Your task to perform on an android device: clear all cookies in the chrome app Image 0: 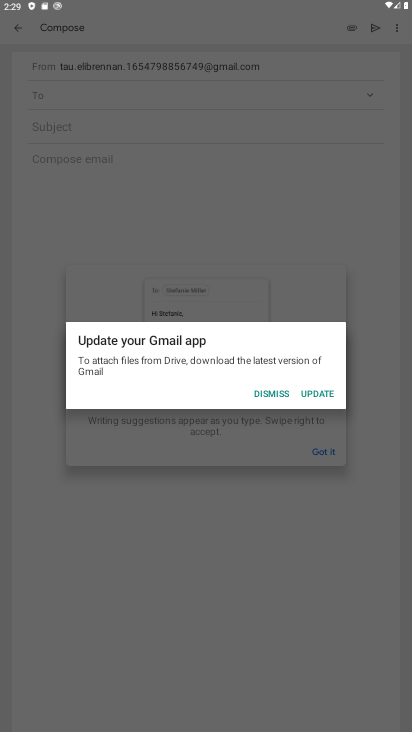
Step 0: press home button
Your task to perform on an android device: clear all cookies in the chrome app Image 1: 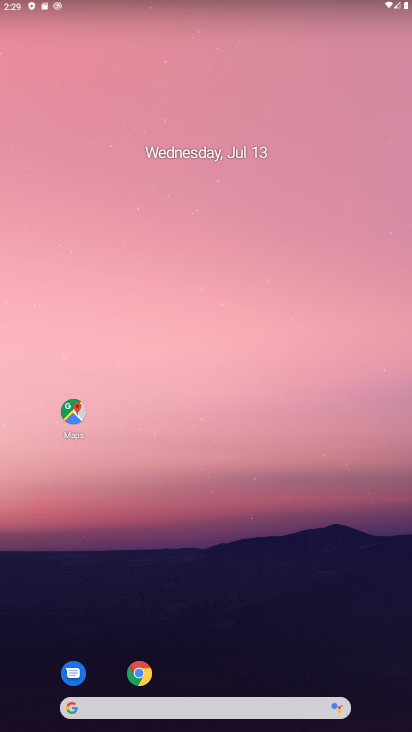
Step 1: click (140, 674)
Your task to perform on an android device: clear all cookies in the chrome app Image 2: 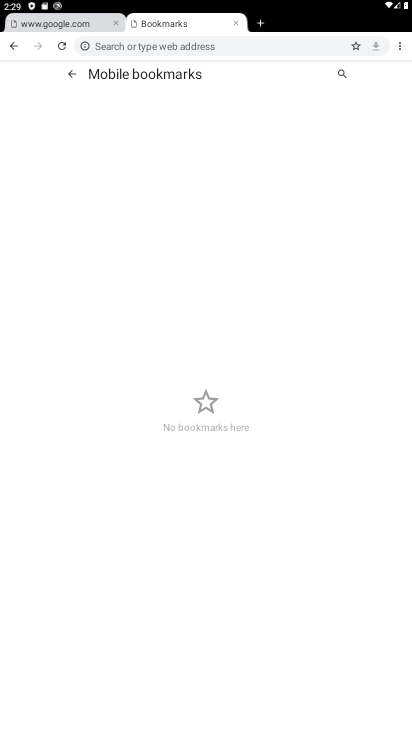
Step 2: click (401, 45)
Your task to perform on an android device: clear all cookies in the chrome app Image 3: 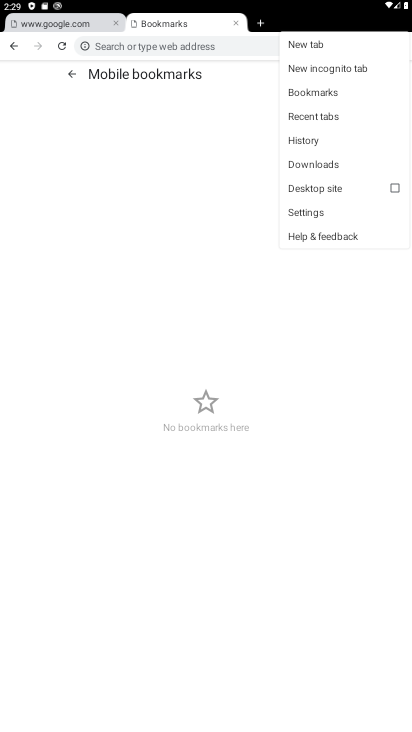
Step 3: click (312, 211)
Your task to perform on an android device: clear all cookies in the chrome app Image 4: 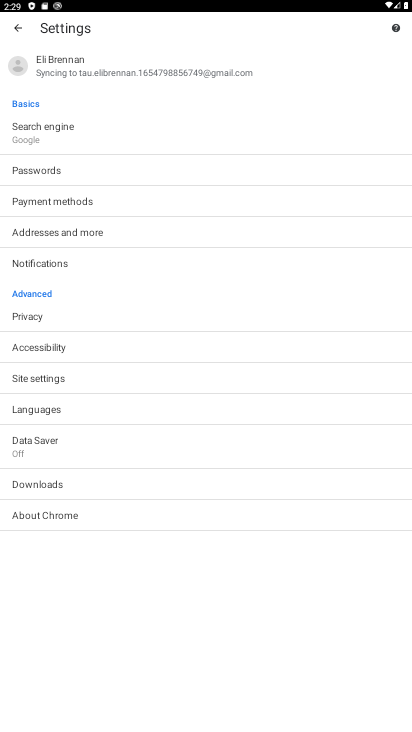
Step 4: click (32, 312)
Your task to perform on an android device: clear all cookies in the chrome app Image 5: 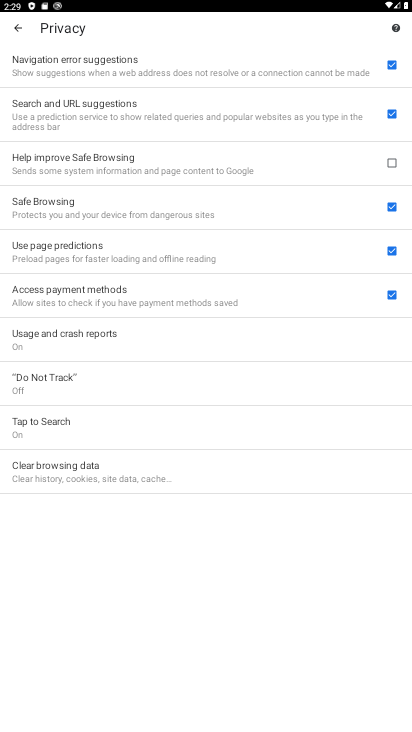
Step 5: click (53, 473)
Your task to perform on an android device: clear all cookies in the chrome app Image 6: 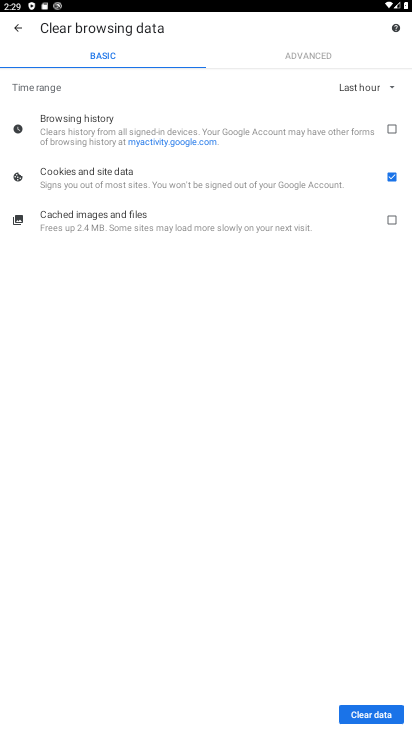
Step 6: click (368, 82)
Your task to perform on an android device: clear all cookies in the chrome app Image 7: 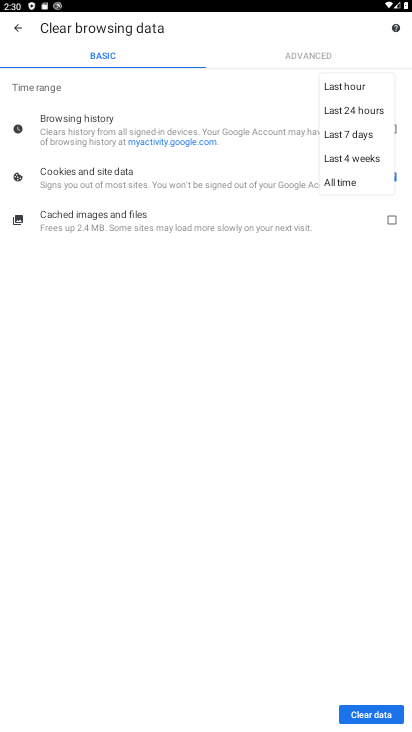
Step 7: click (347, 184)
Your task to perform on an android device: clear all cookies in the chrome app Image 8: 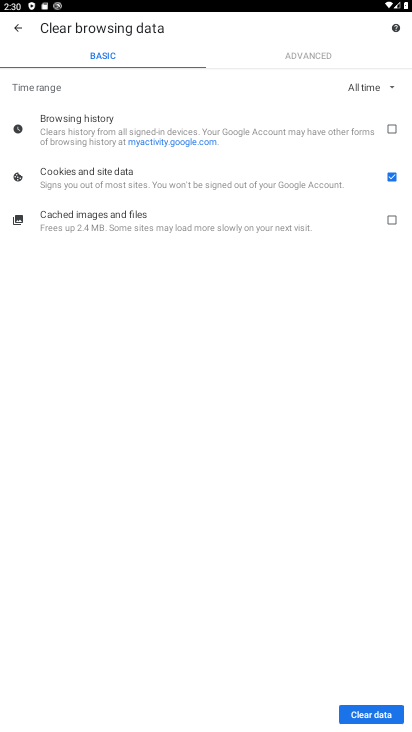
Step 8: click (361, 709)
Your task to perform on an android device: clear all cookies in the chrome app Image 9: 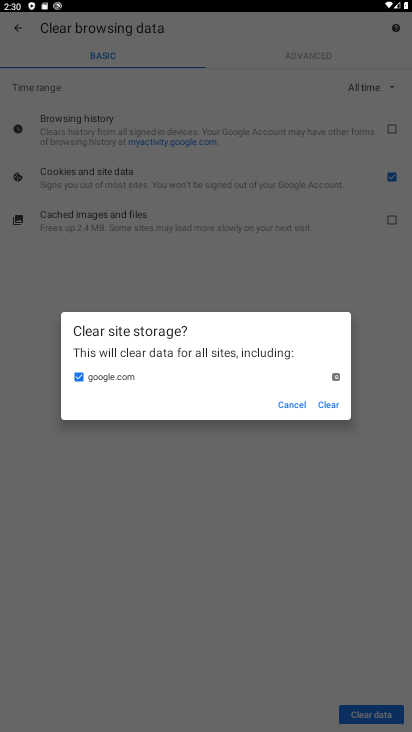
Step 9: click (330, 404)
Your task to perform on an android device: clear all cookies in the chrome app Image 10: 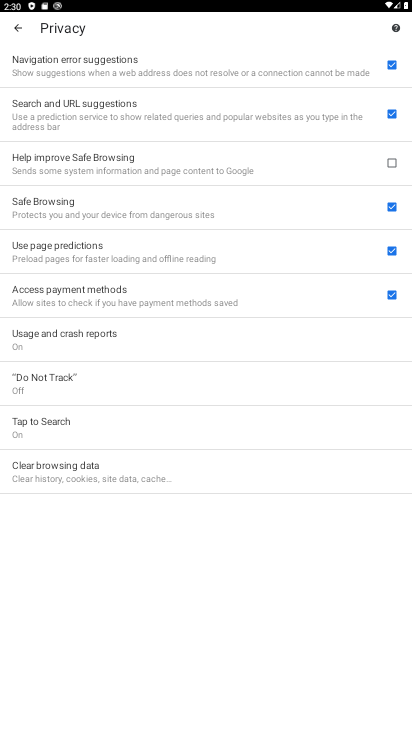
Step 10: task complete